Your task to perform on an android device: turn on the 24-hour format for clock Image 0: 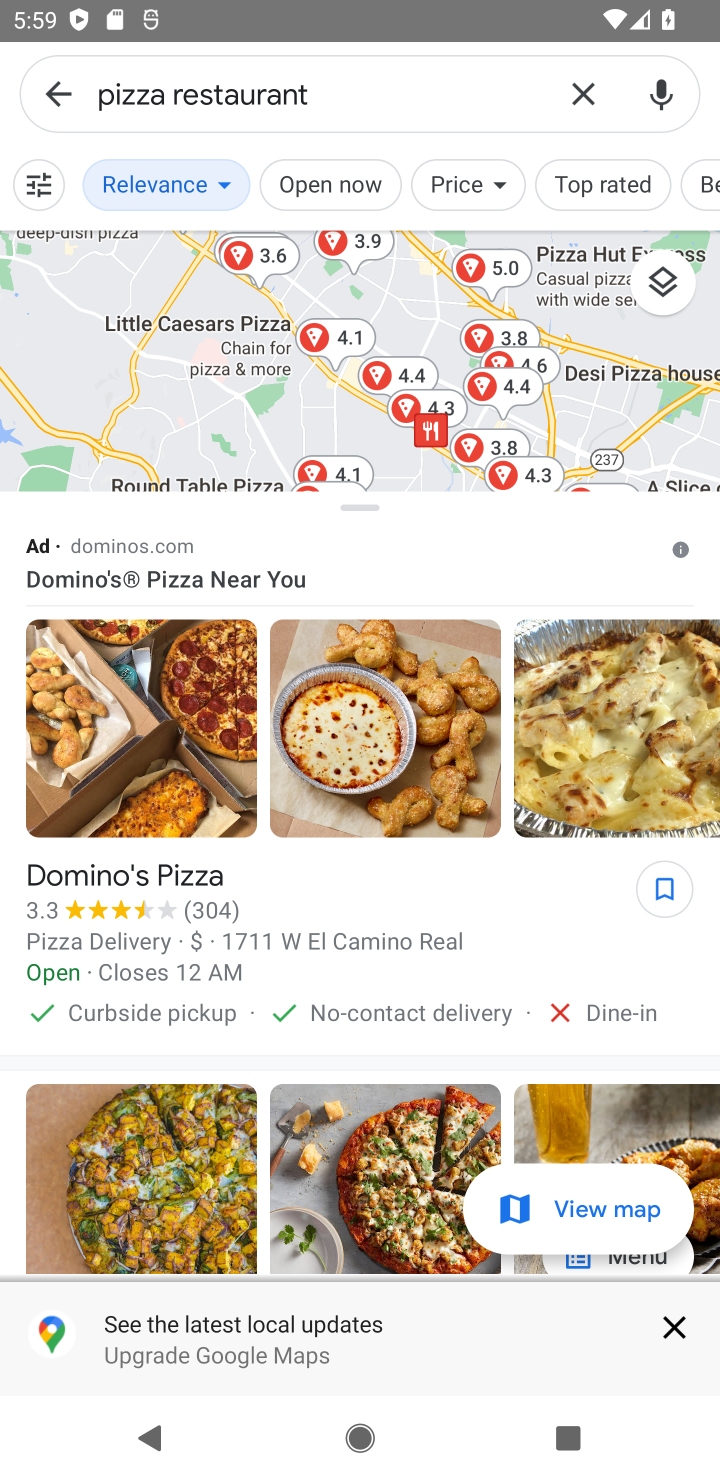
Step 0: press home button
Your task to perform on an android device: turn on the 24-hour format for clock Image 1: 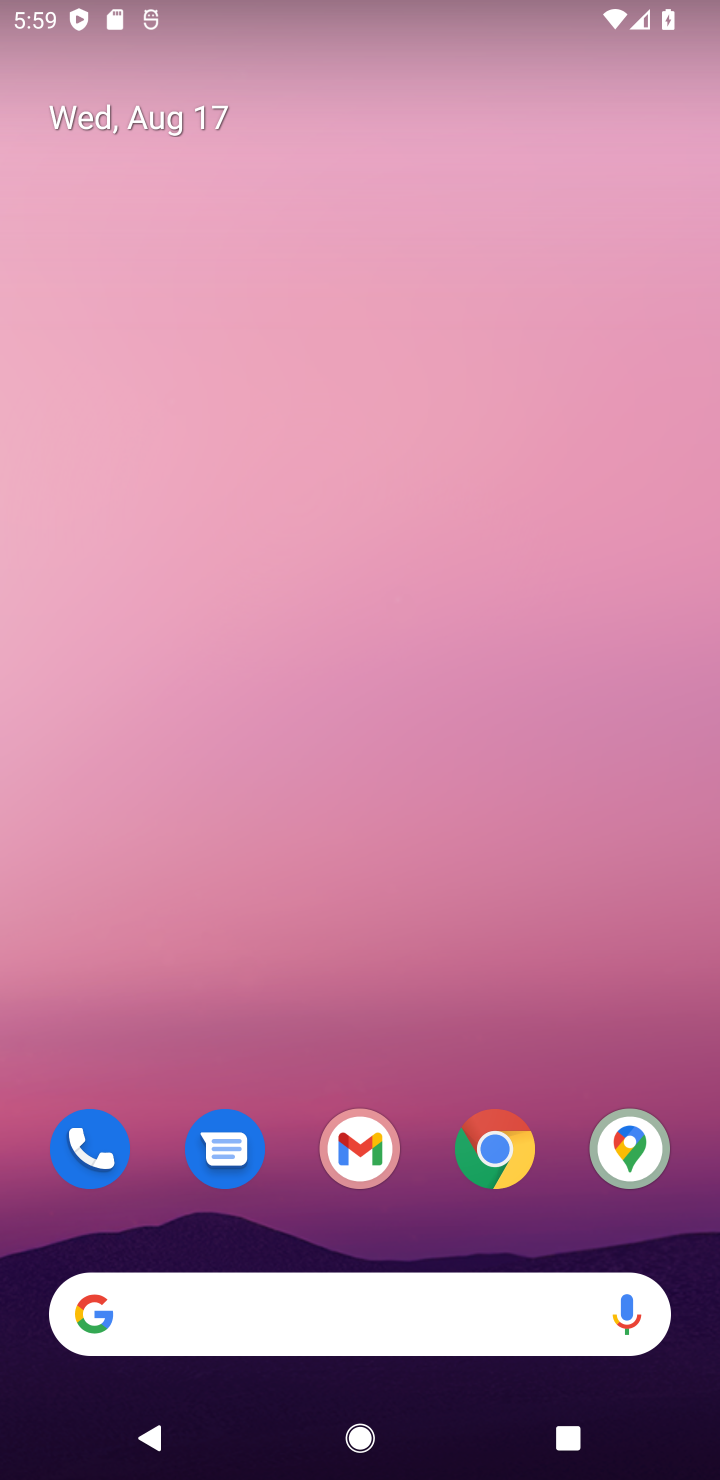
Step 1: drag from (410, 1033) to (327, 30)
Your task to perform on an android device: turn on the 24-hour format for clock Image 2: 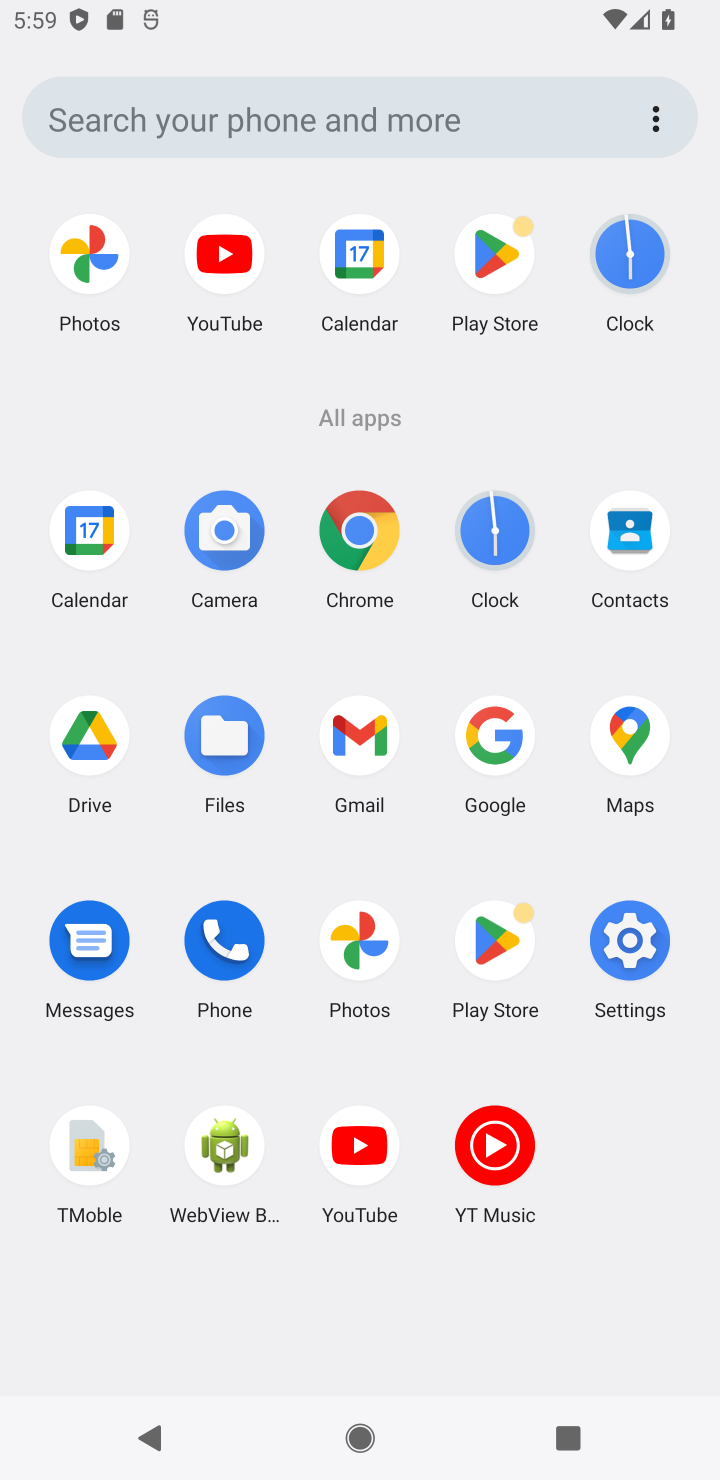
Step 2: click (639, 241)
Your task to perform on an android device: turn on the 24-hour format for clock Image 3: 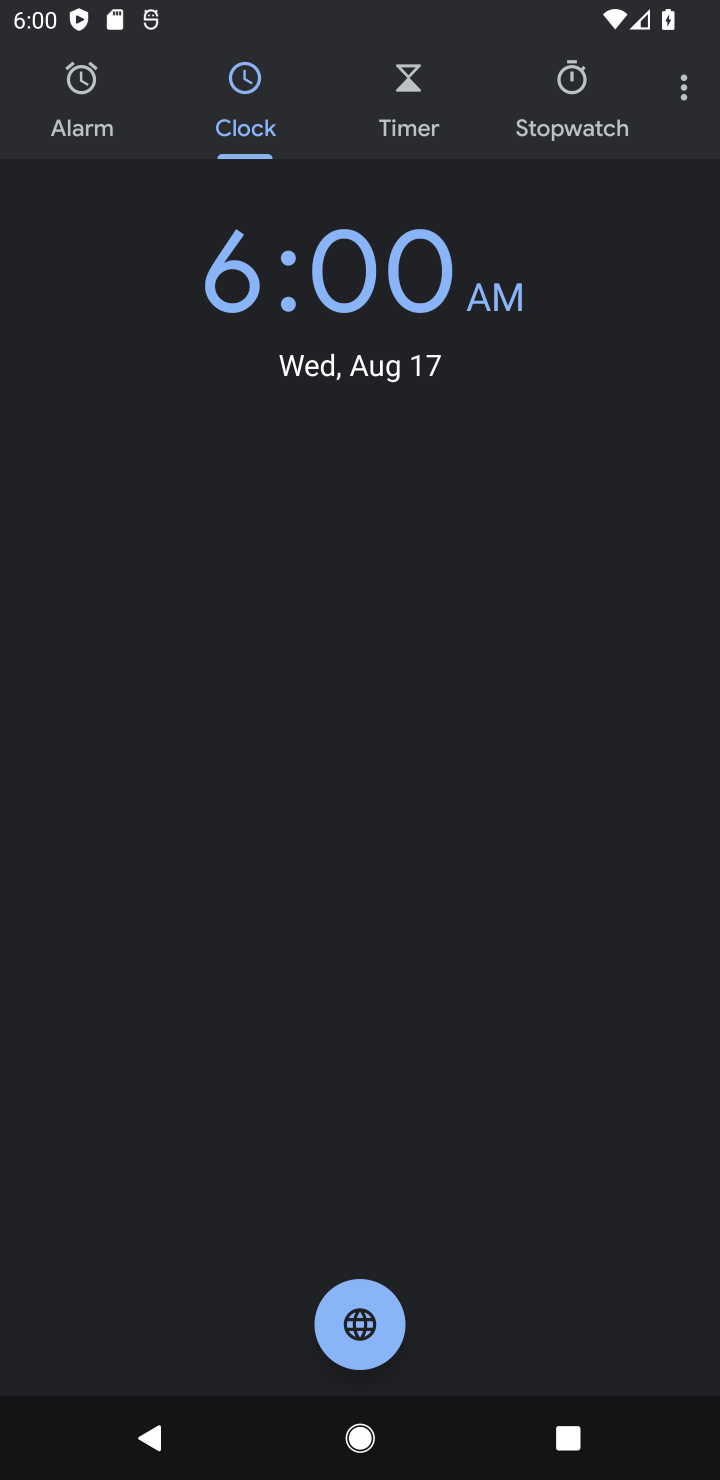
Step 3: click (697, 90)
Your task to perform on an android device: turn on the 24-hour format for clock Image 4: 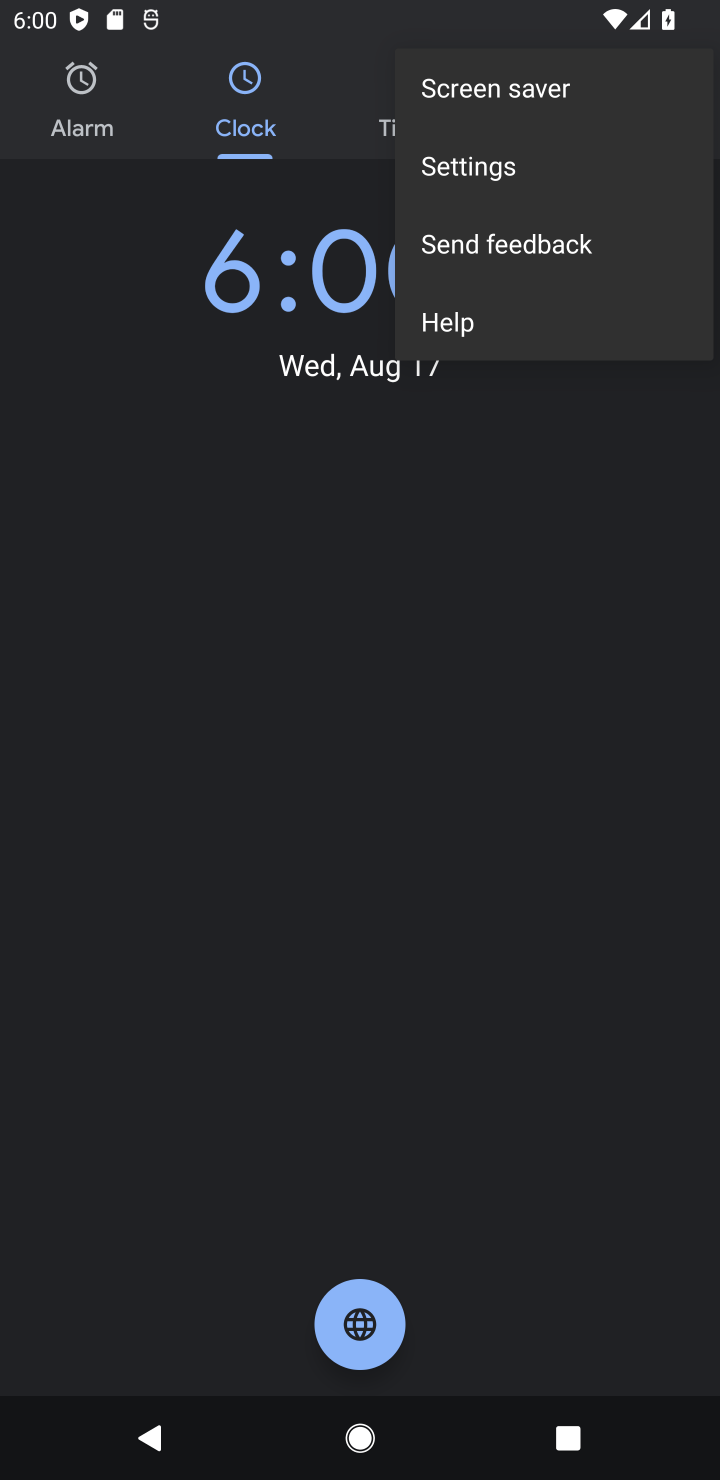
Step 4: click (494, 164)
Your task to perform on an android device: turn on the 24-hour format for clock Image 5: 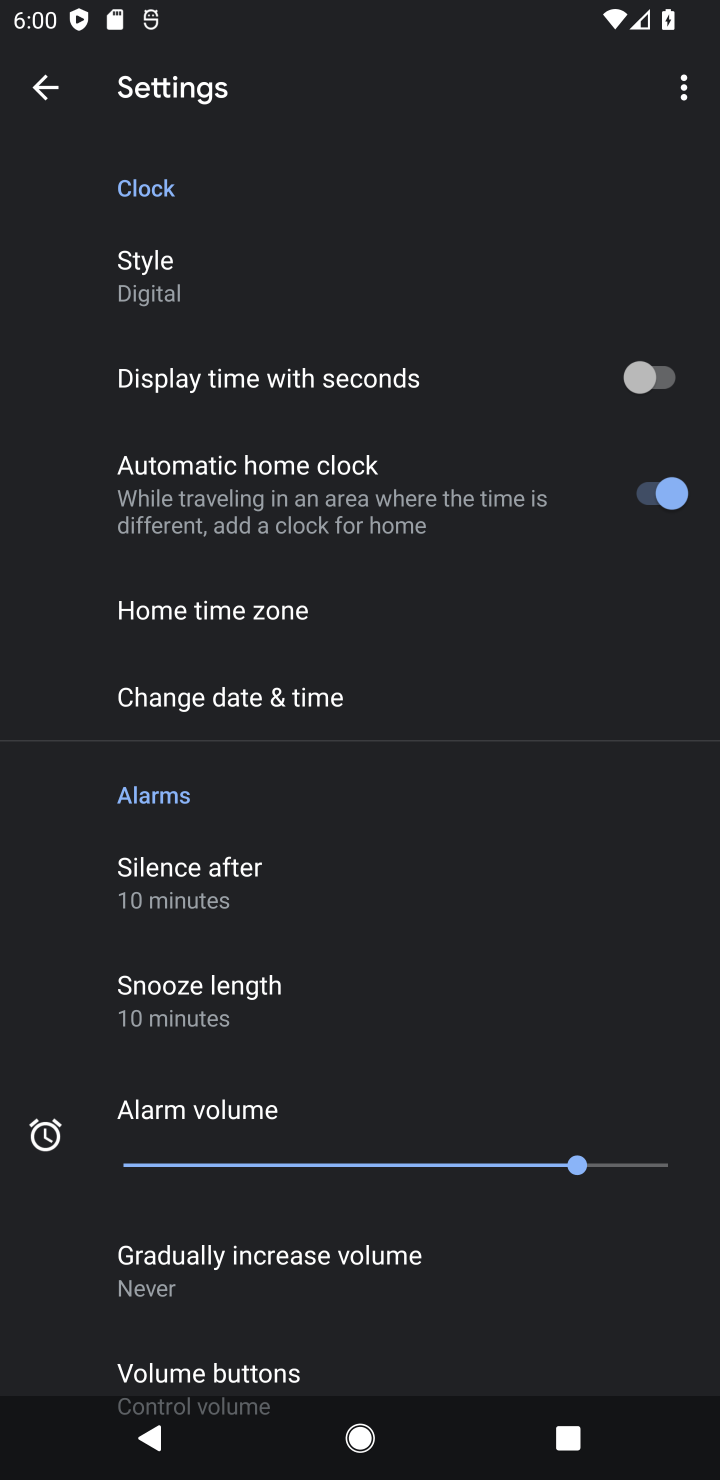
Step 5: click (247, 689)
Your task to perform on an android device: turn on the 24-hour format for clock Image 6: 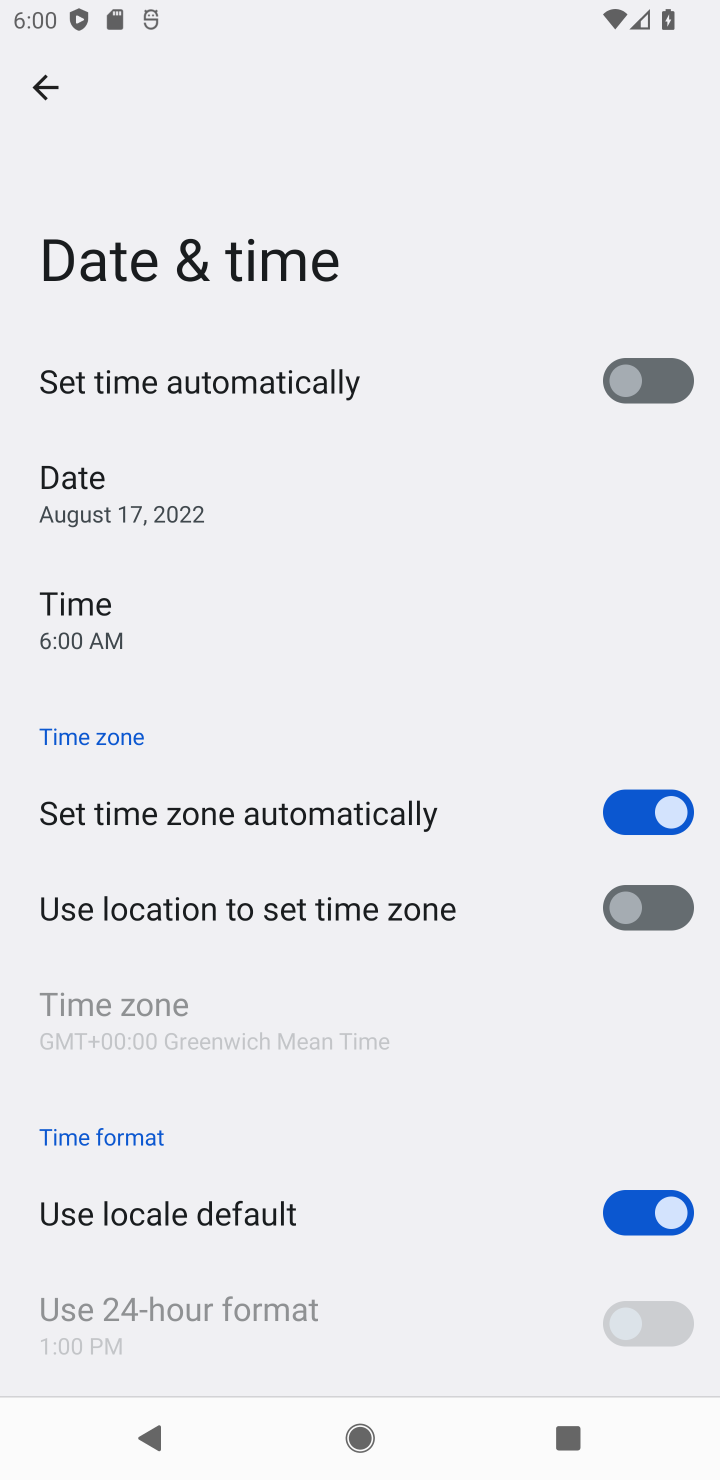
Step 6: click (634, 1218)
Your task to perform on an android device: turn on the 24-hour format for clock Image 7: 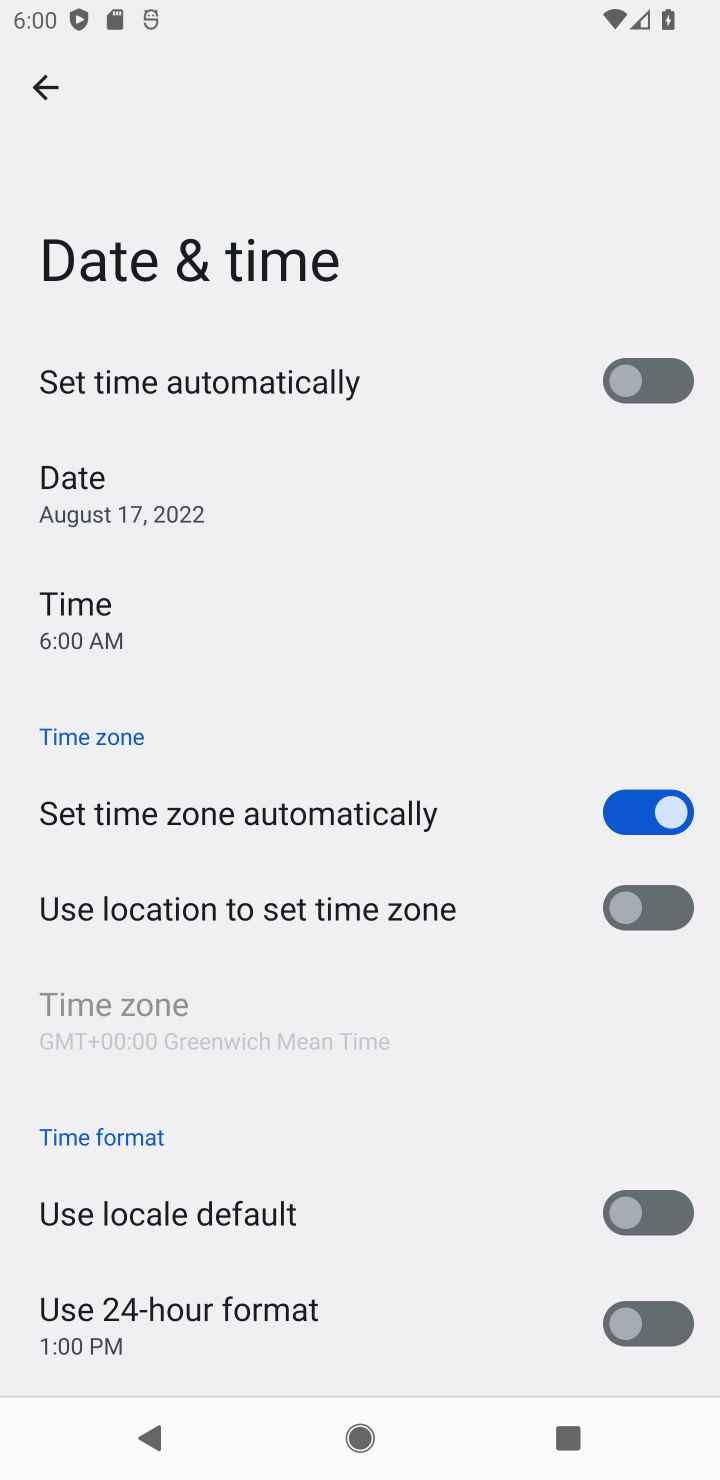
Step 7: click (640, 1309)
Your task to perform on an android device: turn on the 24-hour format for clock Image 8: 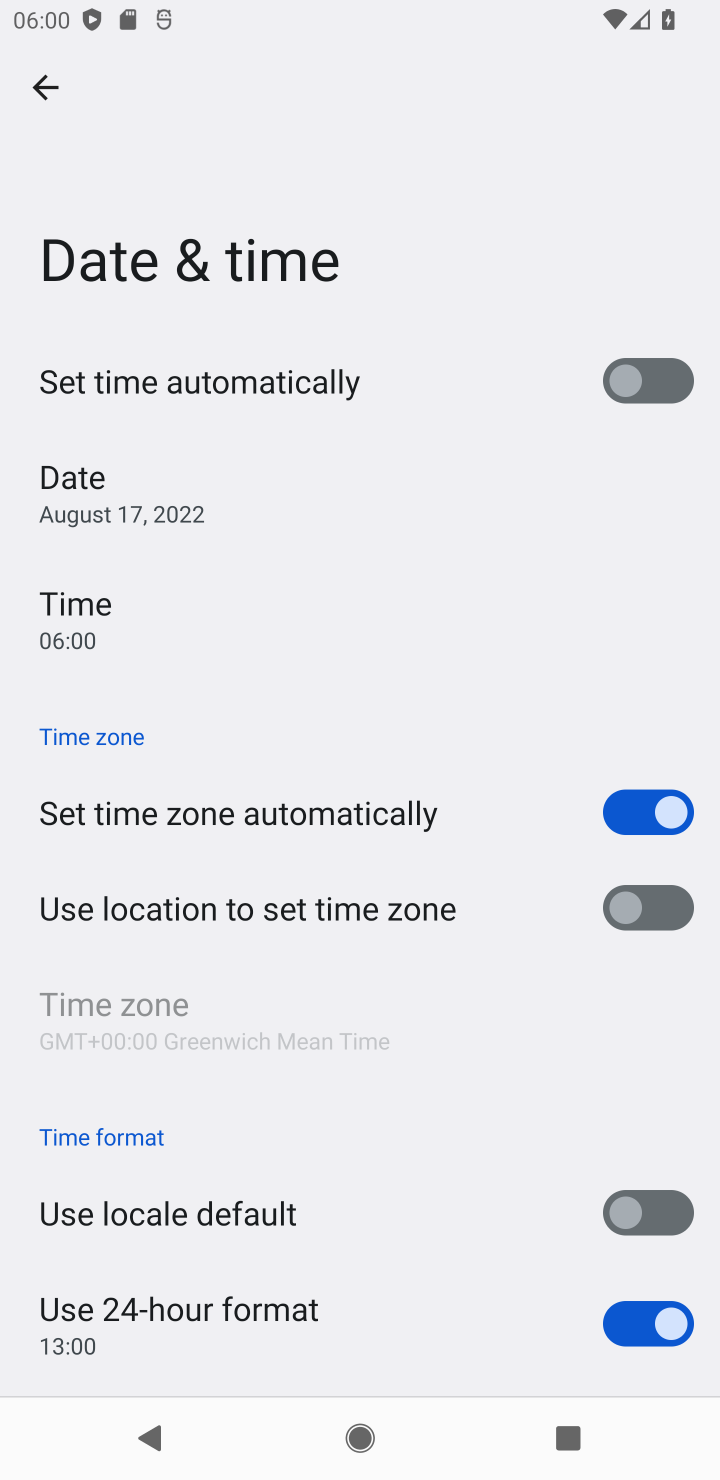
Step 8: task complete